Your task to perform on an android device: Go to battery settings Image 0: 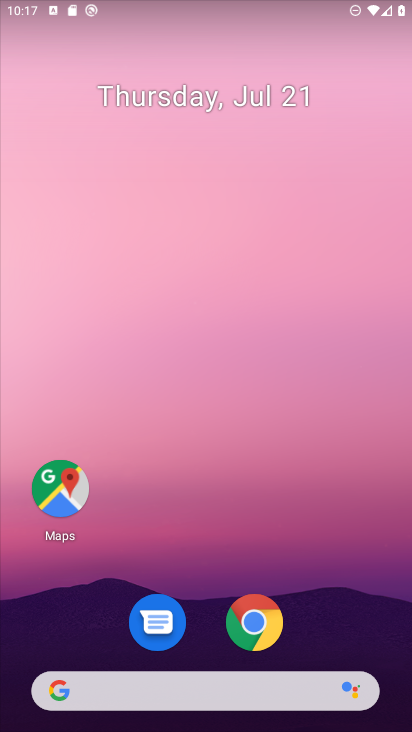
Step 0: drag from (172, 728) to (238, 127)
Your task to perform on an android device: Go to battery settings Image 1: 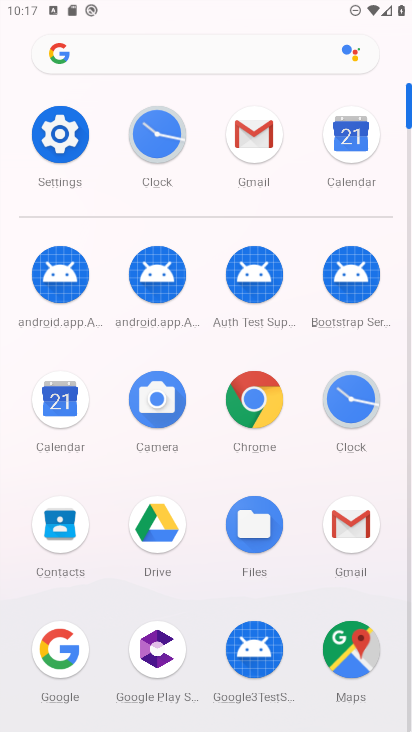
Step 1: click (56, 155)
Your task to perform on an android device: Go to battery settings Image 2: 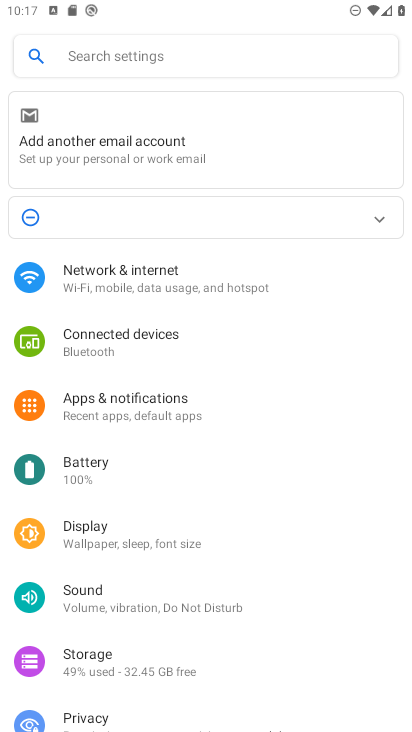
Step 2: click (125, 472)
Your task to perform on an android device: Go to battery settings Image 3: 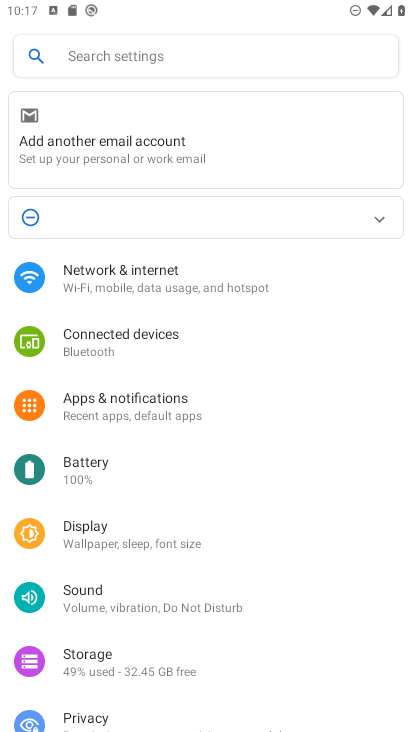
Step 3: click (125, 472)
Your task to perform on an android device: Go to battery settings Image 4: 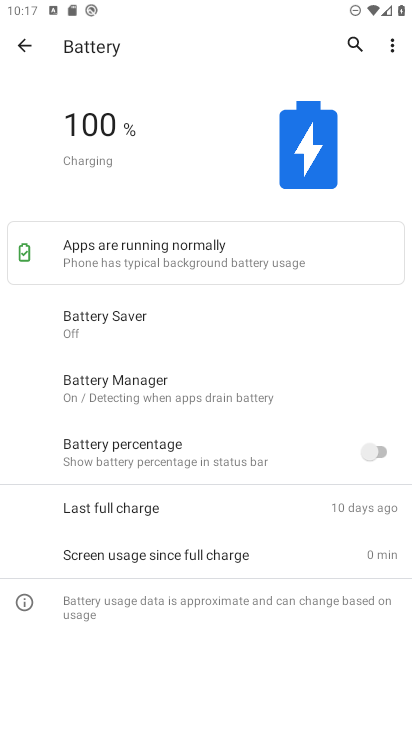
Step 4: task complete